Your task to perform on an android device: toggle airplane mode Image 0: 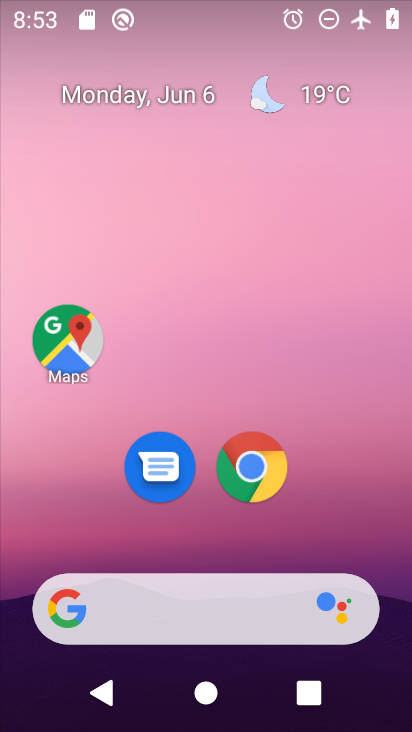
Step 0: drag from (374, 548) to (372, 169)
Your task to perform on an android device: toggle airplane mode Image 1: 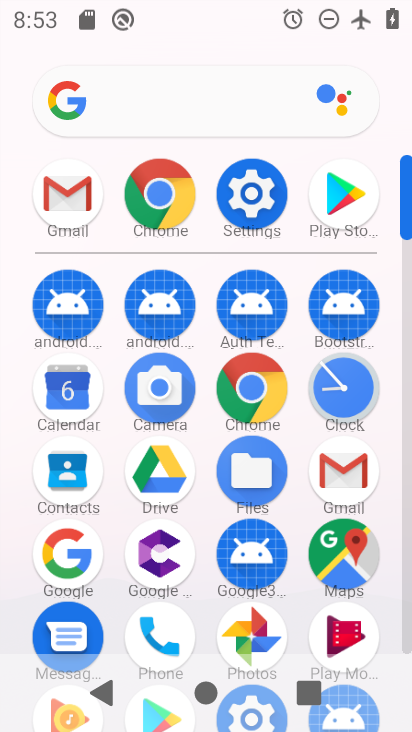
Step 1: click (261, 204)
Your task to perform on an android device: toggle airplane mode Image 2: 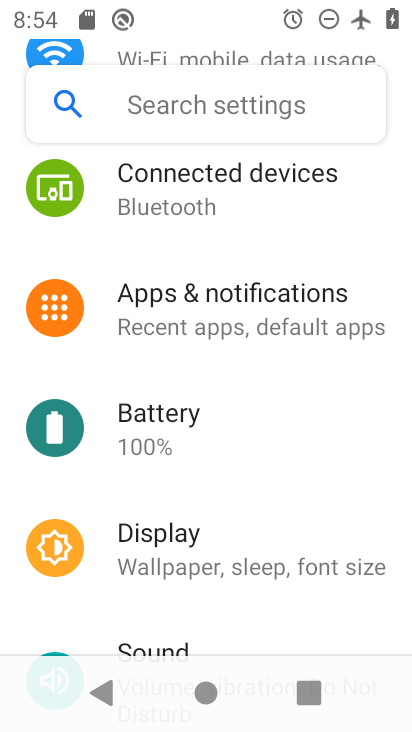
Step 2: drag from (337, 363) to (326, 455)
Your task to perform on an android device: toggle airplane mode Image 3: 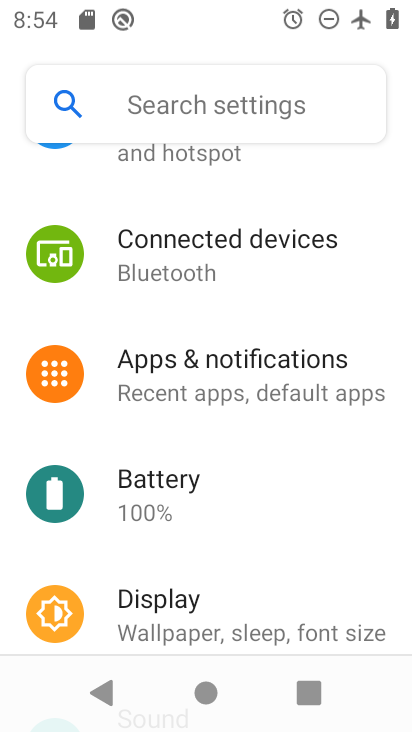
Step 3: drag from (347, 327) to (368, 445)
Your task to perform on an android device: toggle airplane mode Image 4: 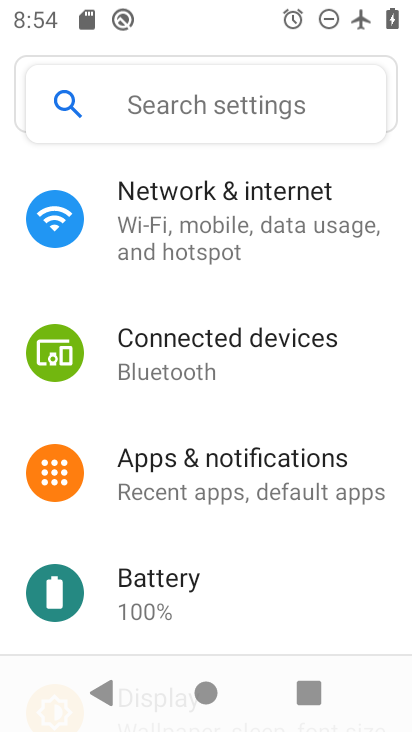
Step 4: drag from (352, 268) to (372, 465)
Your task to perform on an android device: toggle airplane mode Image 5: 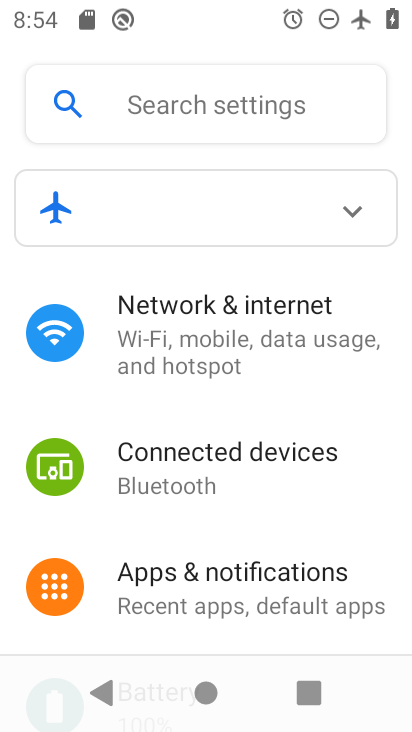
Step 5: click (266, 375)
Your task to perform on an android device: toggle airplane mode Image 6: 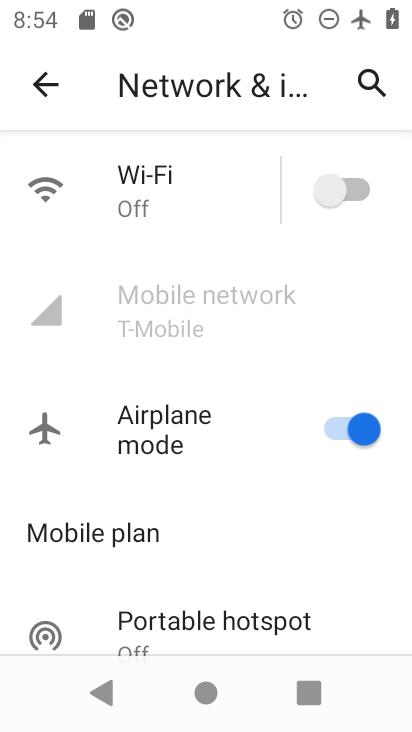
Step 6: click (354, 434)
Your task to perform on an android device: toggle airplane mode Image 7: 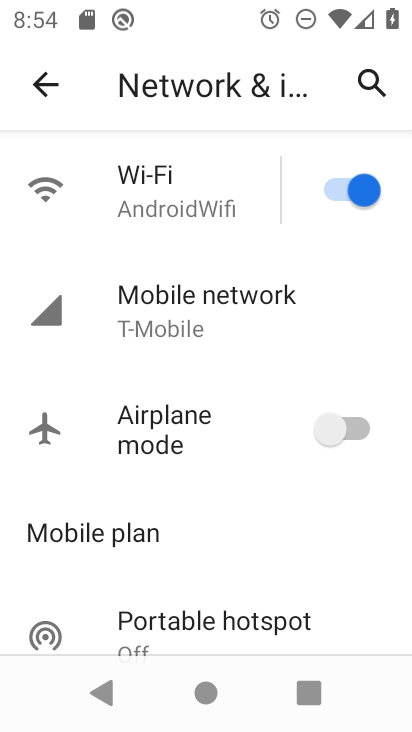
Step 7: task complete